Your task to perform on an android device: Open Google Chrome and open the bookmarks view Image 0: 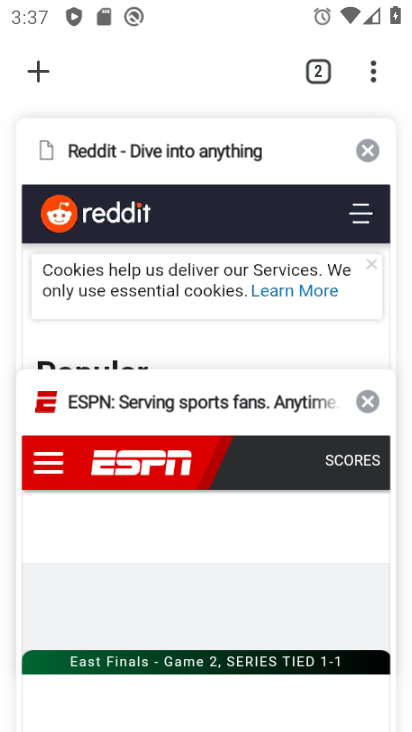
Step 0: press home button
Your task to perform on an android device: Open Google Chrome and open the bookmarks view Image 1: 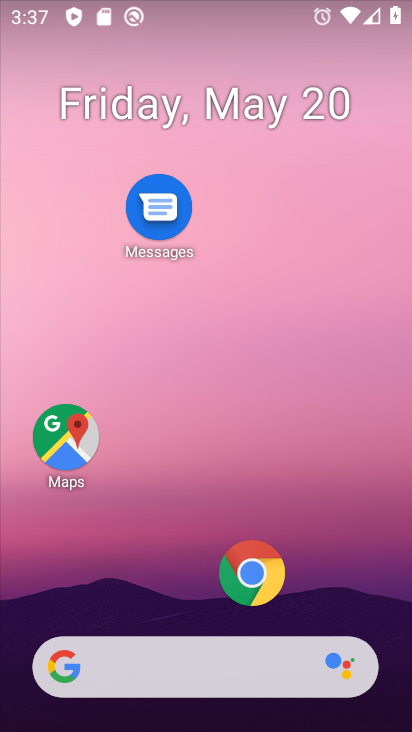
Step 1: click (263, 564)
Your task to perform on an android device: Open Google Chrome and open the bookmarks view Image 2: 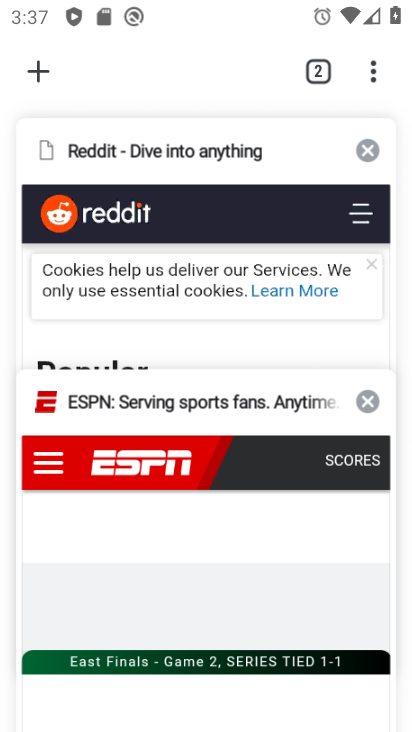
Step 2: click (281, 469)
Your task to perform on an android device: Open Google Chrome and open the bookmarks view Image 3: 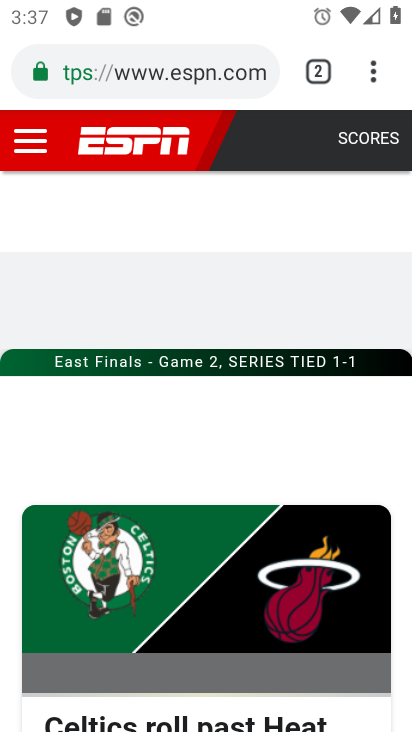
Step 3: drag from (365, 75) to (169, 275)
Your task to perform on an android device: Open Google Chrome and open the bookmarks view Image 4: 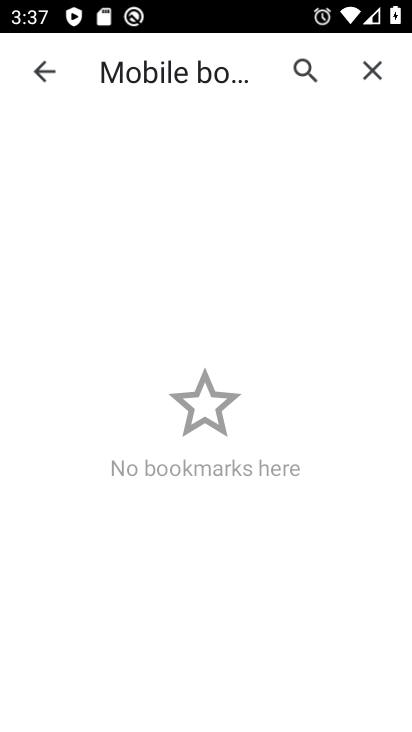
Step 4: press home button
Your task to perform on an android device: Open Google Chrome and open the bookmarks view Image 5: 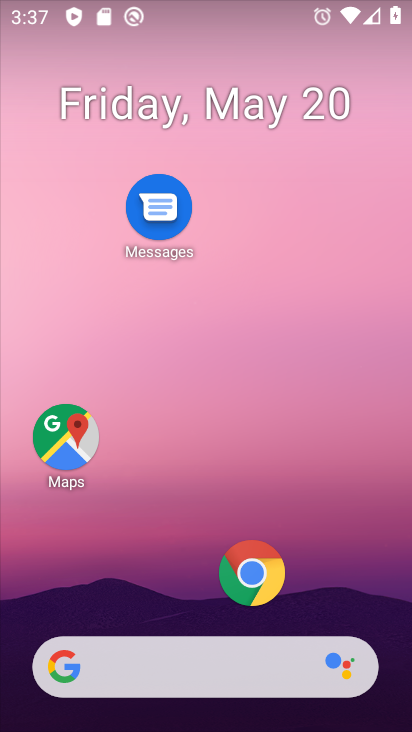
Step 5: click (271, 567)
Your task to perform on an android device: Open Google Chrome and open the bookmarks view Image 6: 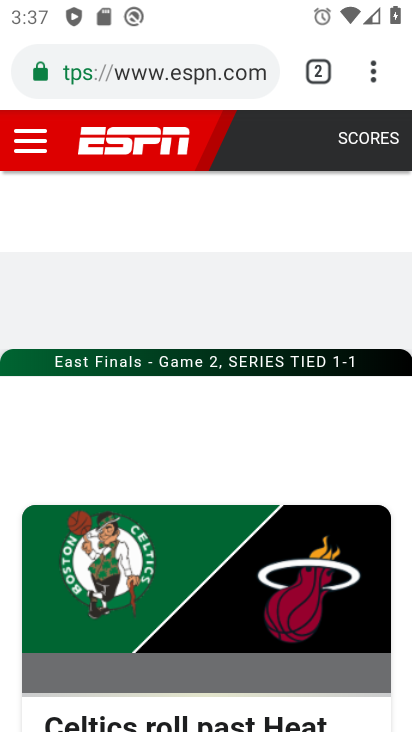
Step 6: task complete